Your task to perform on an android device: open app "Reddit" (install if not already installed) and enter user name: "issues@yahoo.com" and password: "belt" Image 0: 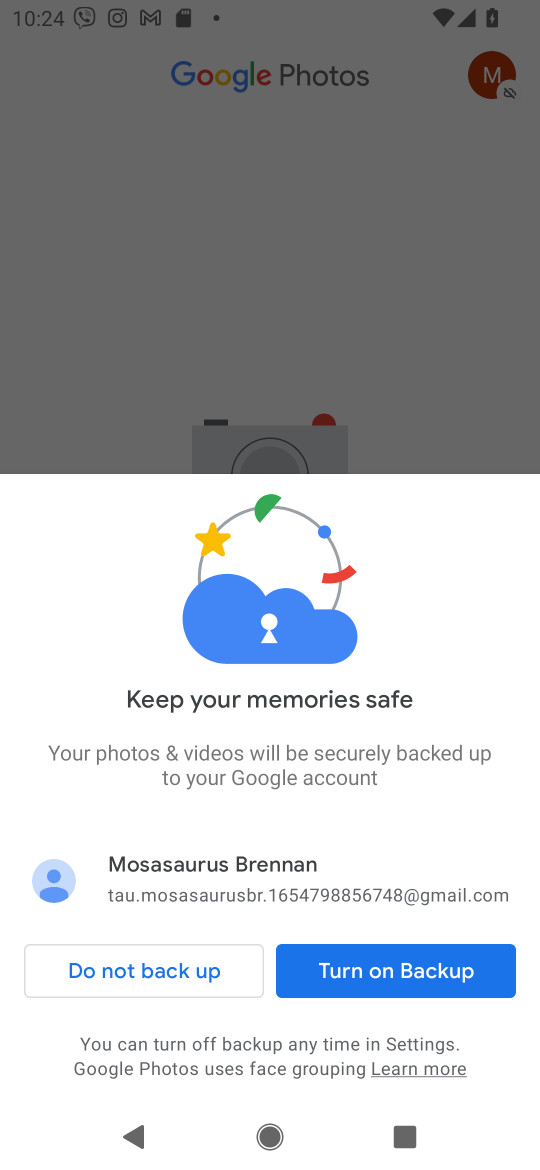
Step 0: press home button
Your task to perform on an android device: open app "Reddit" (install if not already installed) and enter user name: "issues@yahoo.com" and password: "belt" Image 1: 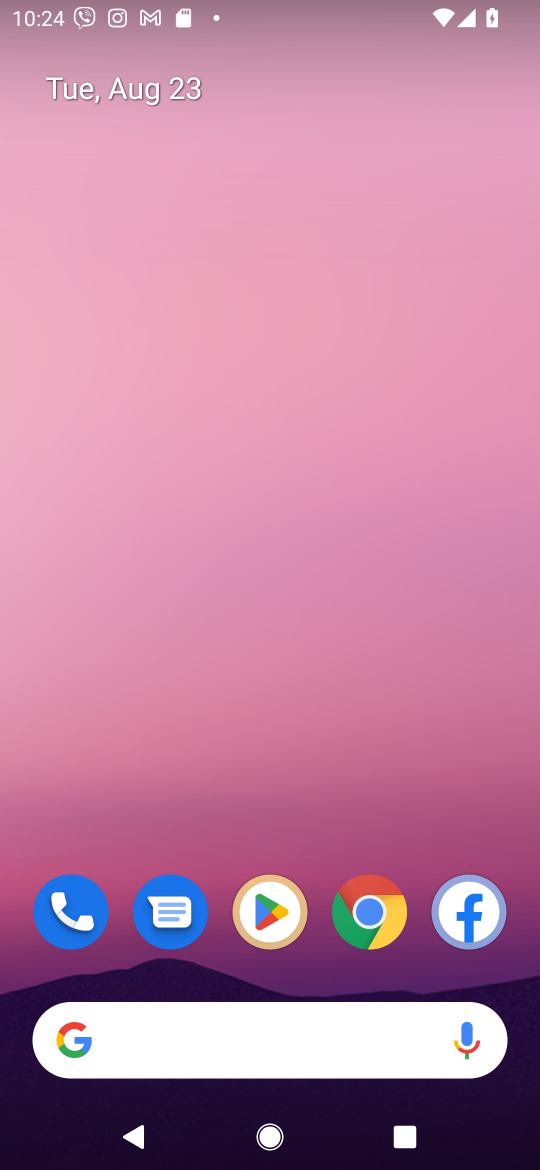
Step 1: click (271, 907)
Your task to perform on an android device: open app "Reddit" (install if not already installed) and enter user name: "issues@yahoo.com" and password: "belt" Image 2: 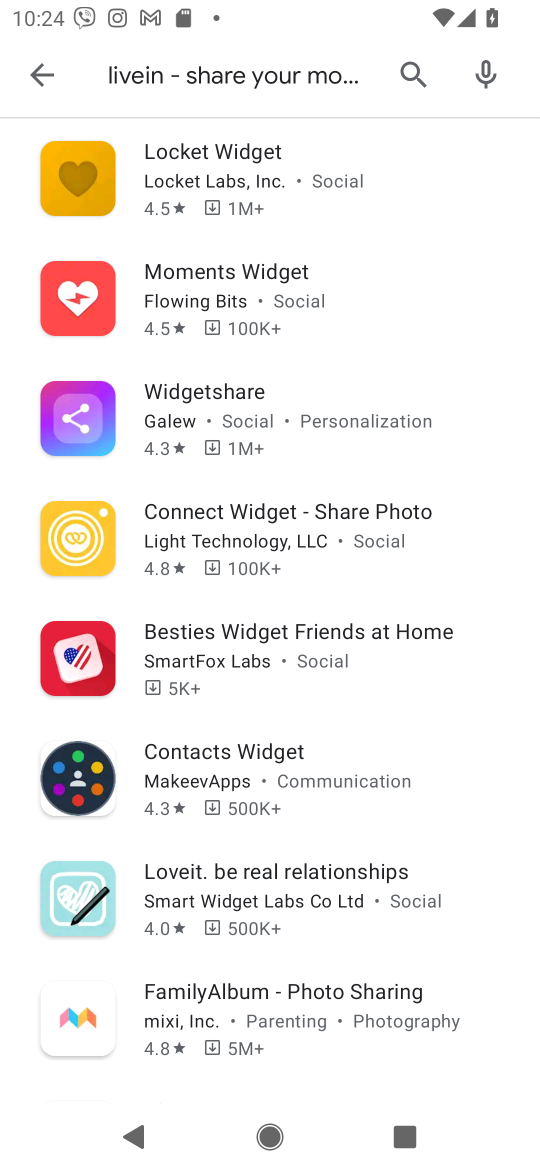
Step 2: click (405, 68)
Your task to perform on an android device: open app "Reddit" (install if not already installed) and enter user name: "issues@yahoo.com" and password: "belt" Image 3: 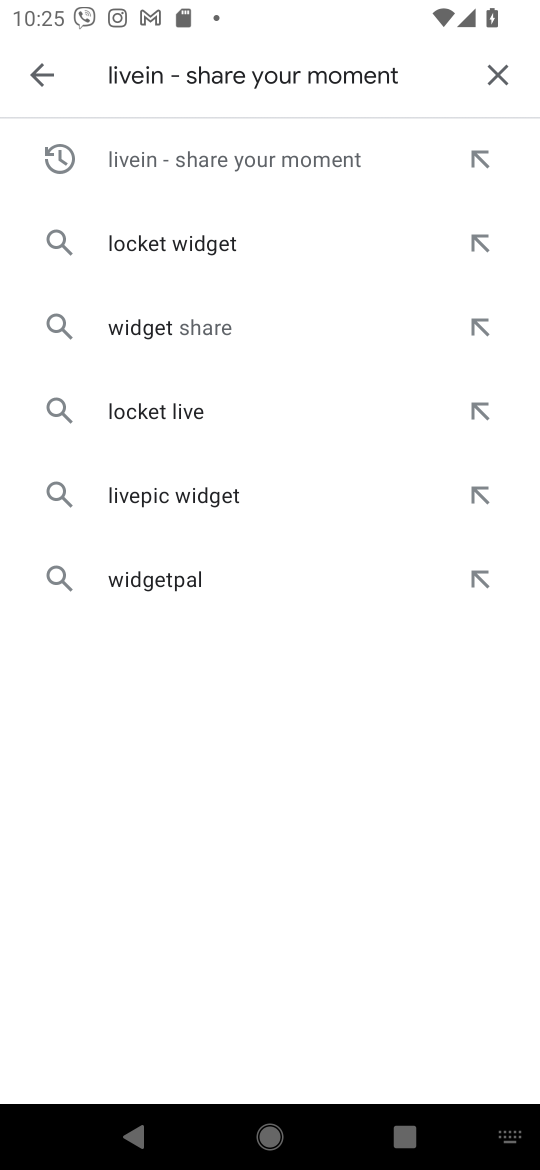
Step 3: click (490, 69)
Your task to perform on an android device: open app "Reddit" (install if not already installed) and enter user name: "issues@yahoo.com" and password: "belt" Image 4: 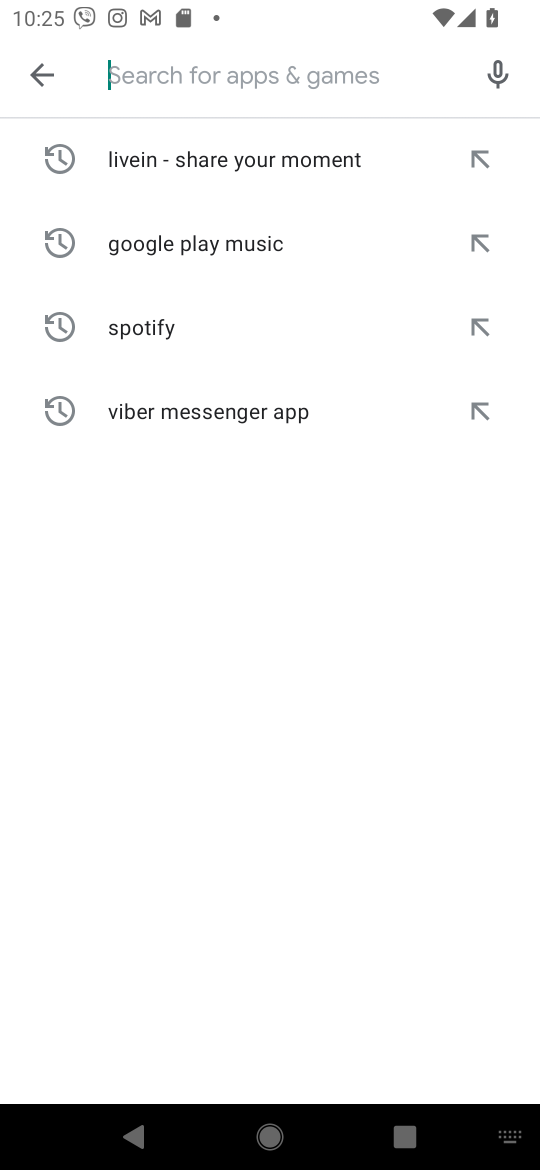
Step 4: type "Reddit"
Your task to perform on an android device: open app "Reddit" (install if not already installed) and enter user name: "issues@yahoo.com" and password: "belt" Image 5: 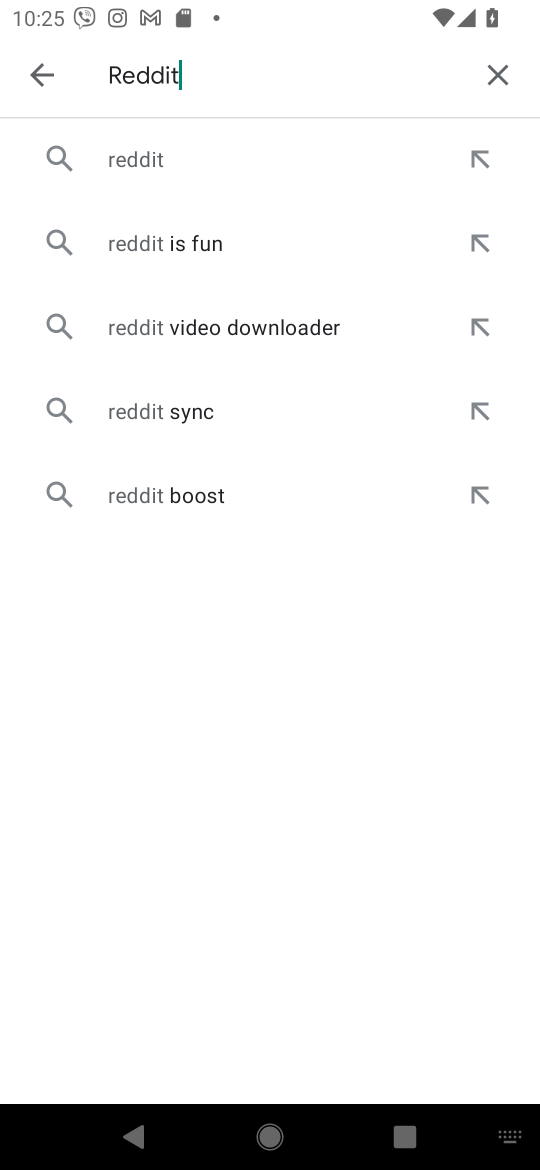
Step 5: click (129, 155)
Your task to perform on an android device: open app "Reddit" (install if not already installed) and enter user name: "issues@yahoo.com" and password: "belt" Image 6: 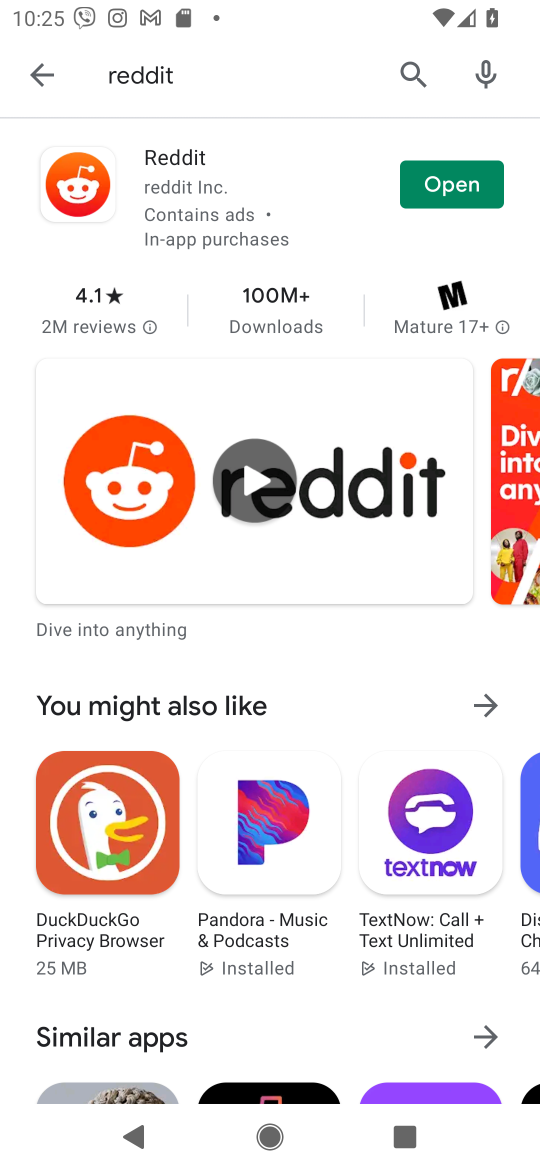
Step 6: click (452, 186)
Your task to perform on an android device: open app "Reddit" (install if not already installed) and enter user name: "issues@yahoo.com" and password: "belt" Image 7: 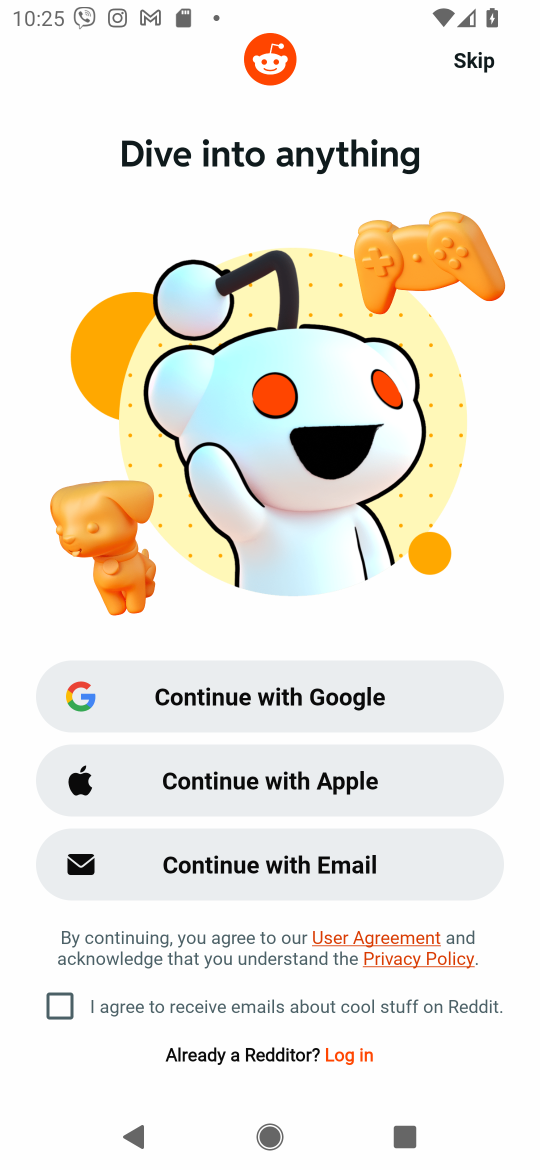
Step 7: click (289, 868)
Your task to perform on an android device: open app "Reddit" (install if not already installed) and enter user name: "issues@yahoo.com" and password: "belt" Image 8: 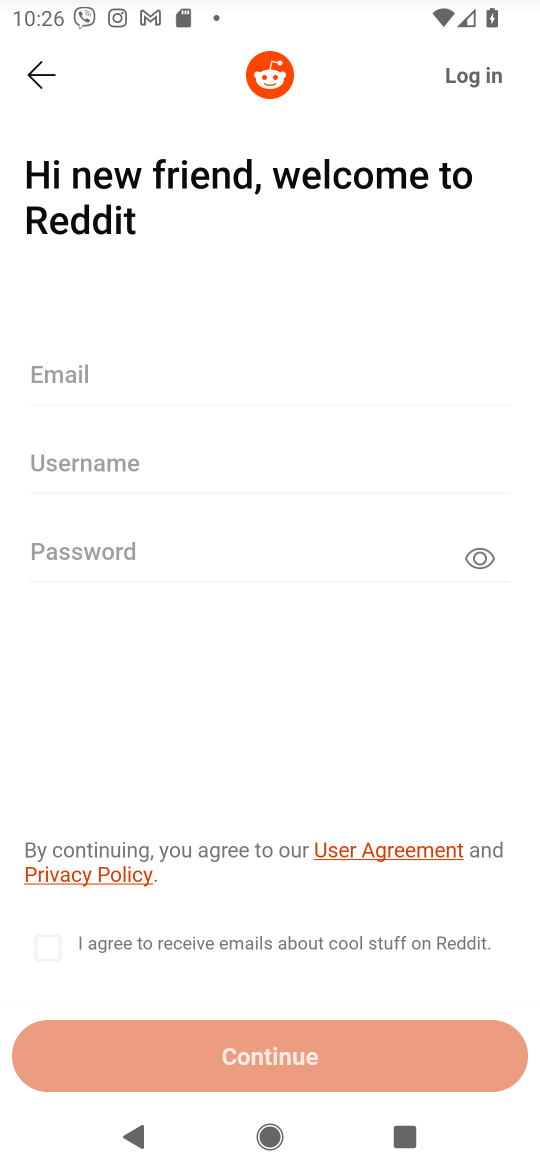
Step 8: click (142, 387)
Your task to perform on an android device: open app "Reddit" (install if not already installed) and enter user name: "issues@yahoo.com" and password: "belt" Image 9: 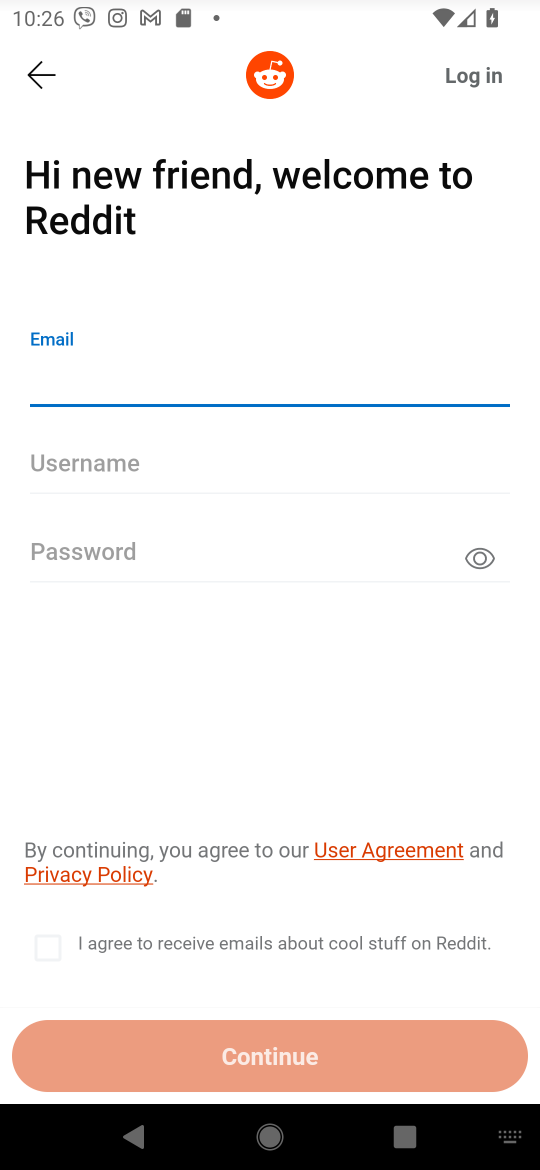
Step 9: type "issues@yahoo.com"
Your task to perform on an android device: open app "Reddit" (install if not already installed) and enter user name: "issues@yahoo.com" and password: "belt" Image 10: 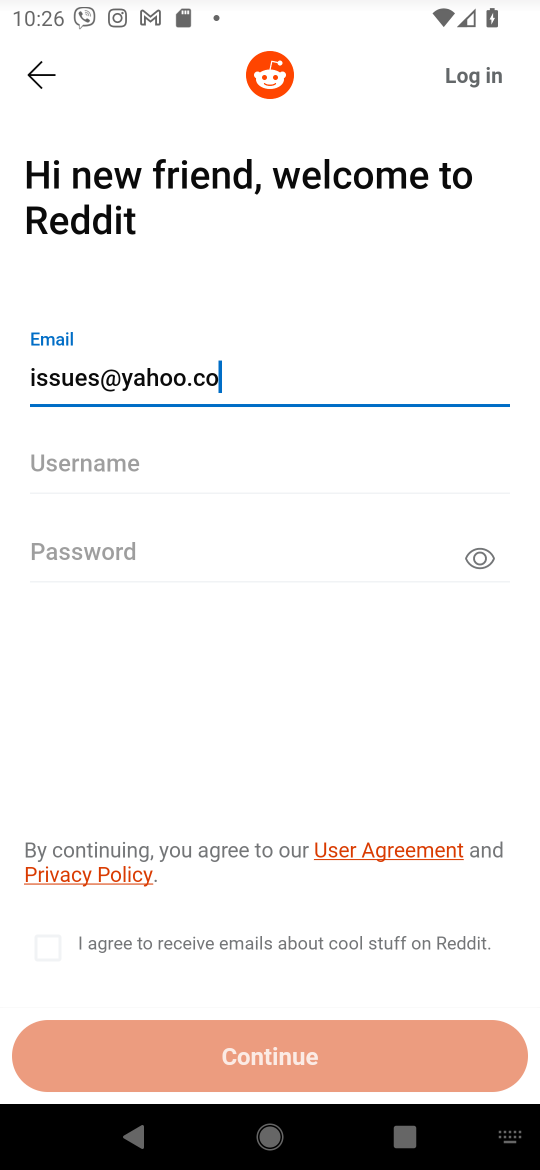
Step 10: type ""
Your task to perform on an android device: open app "Reddit" (install if not already installed) and enter user name: "issues@yahoo.com" and password: "belt" Image 11: 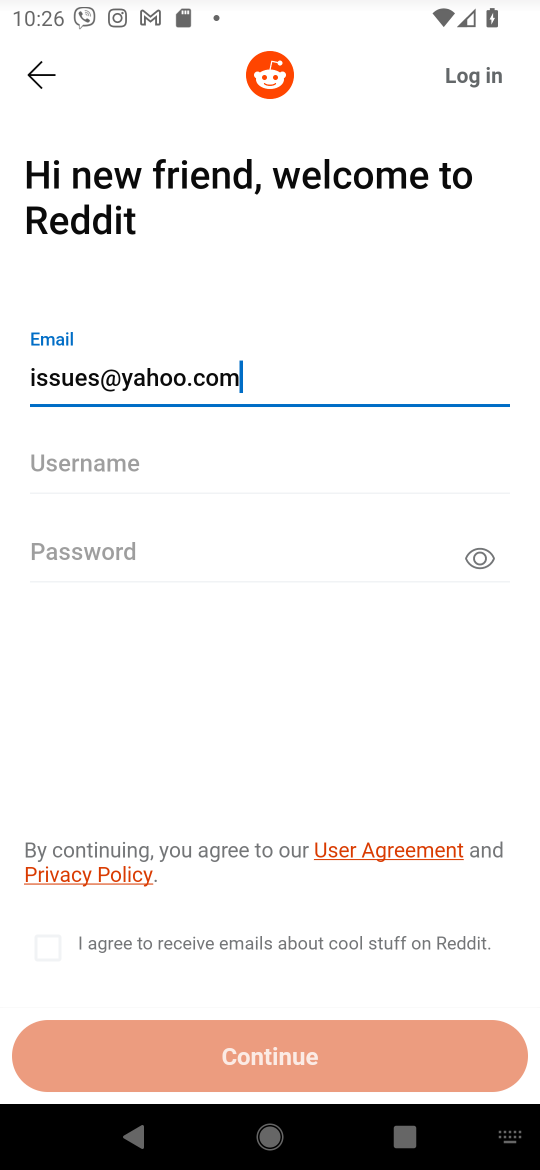
Step 11: click (174, 556)
Your task to perform on an android device: open app "Reddit" (install if not already installed) and enter user name: "issues@yahoo.com" and password: "belt" Image 12: 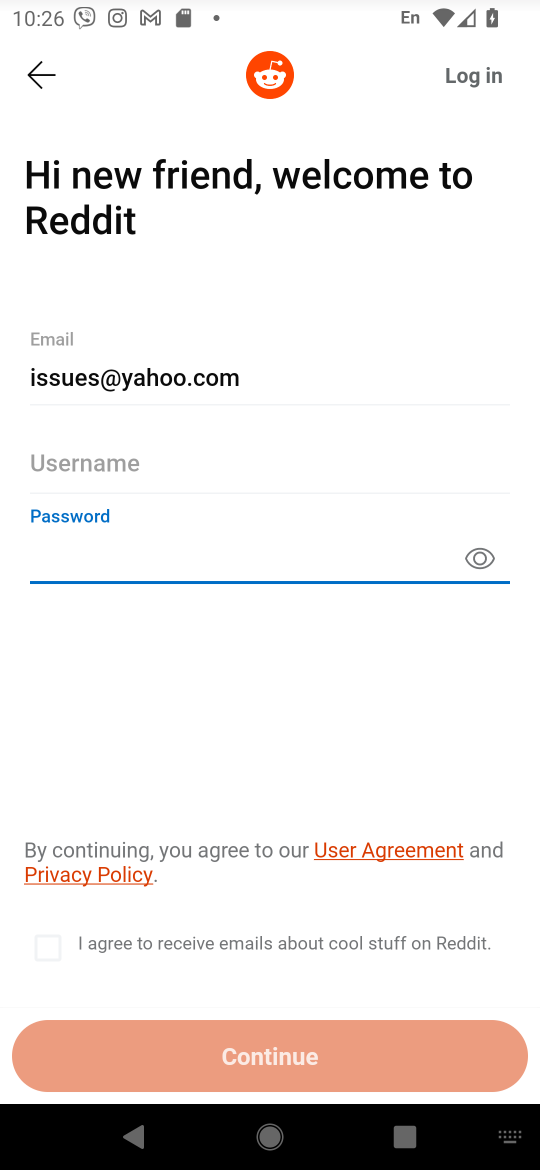
Step 12: type "belt"
Your task to perform on an android device: open app "Reddit" (install if not already installed) and enter user name: "issues@yahoo.com" and password: "belt" Image 13: 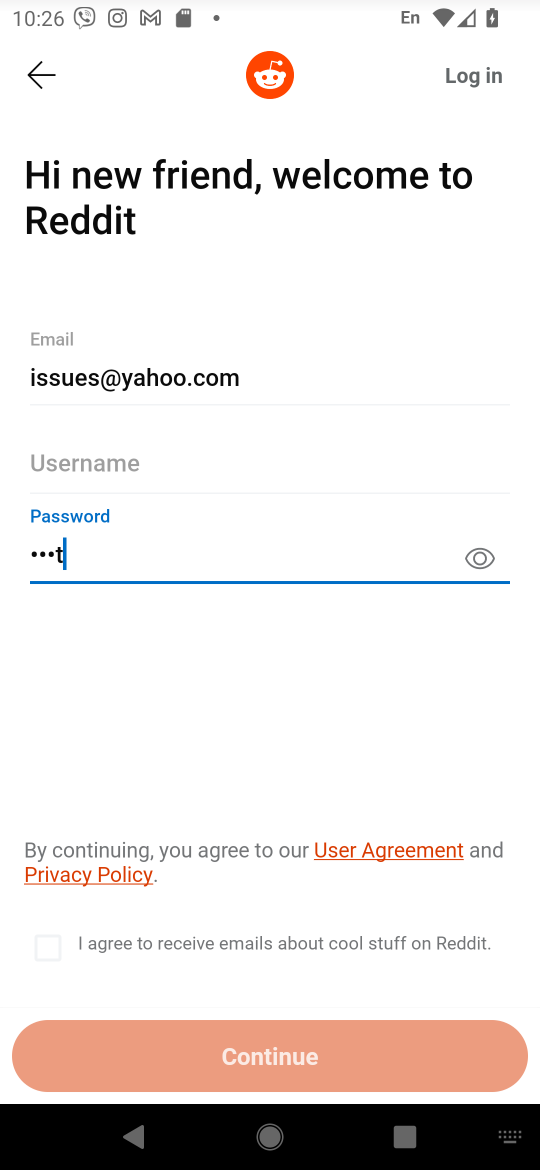
Step 13: type ""
Your task to perform on an android device: open app "Reddit" (install if not already installed) and enter user name: "issues@yahoo.com" and password: "belt" Image 14: 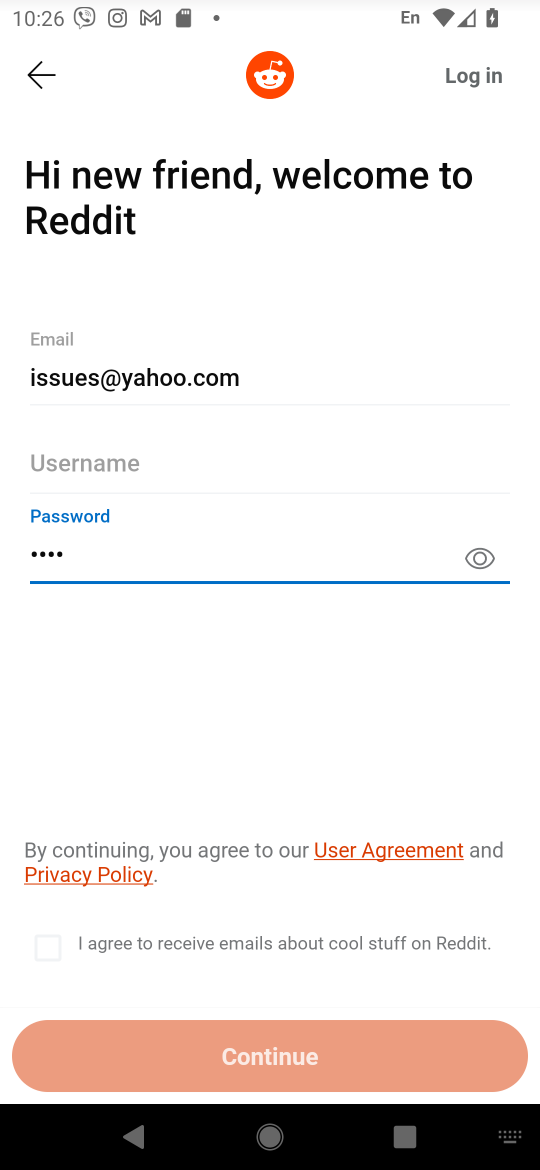
Step 14: task complete